Your task to perform on an android device: Open Google Chrome Image 0: 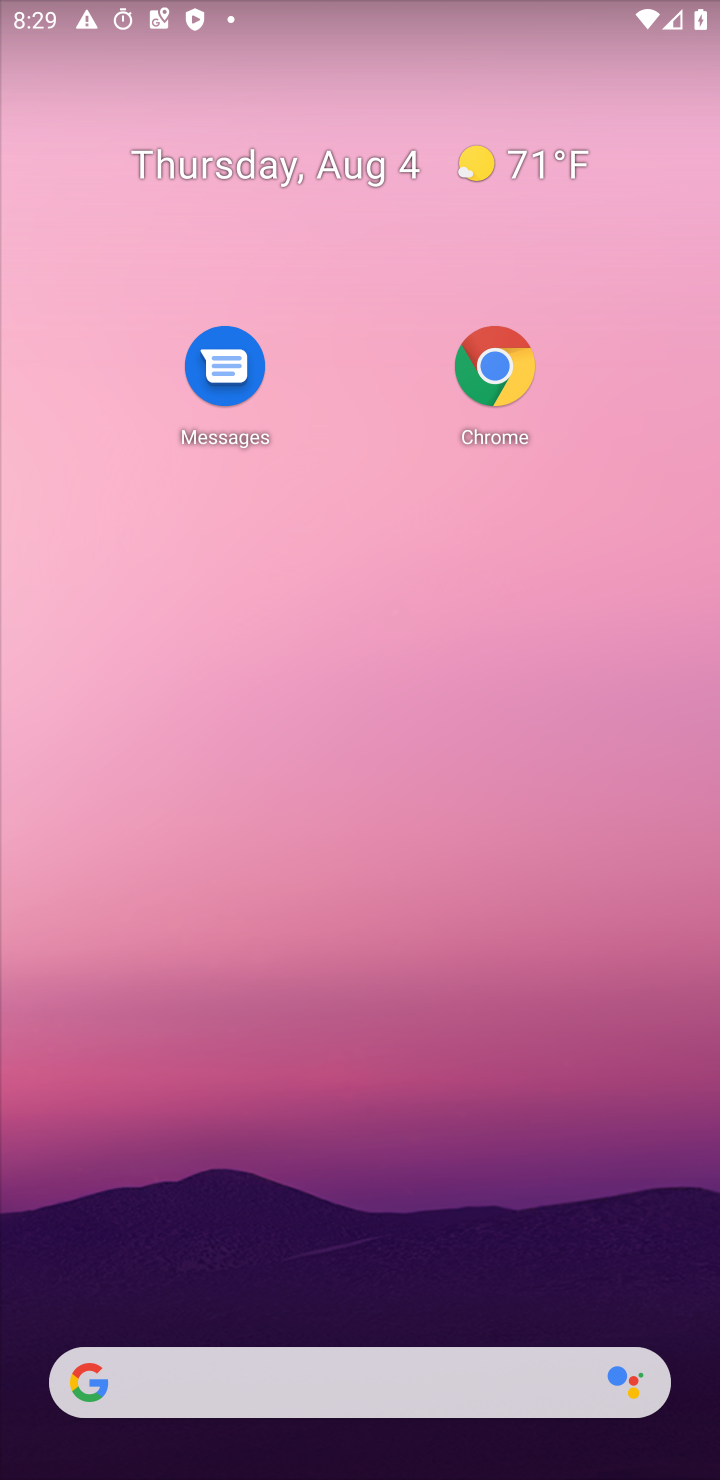
Step 0: drag from (483, 1412) to (384, 386)
Your task to perform on an android device: Open Google Chrome Image 1: 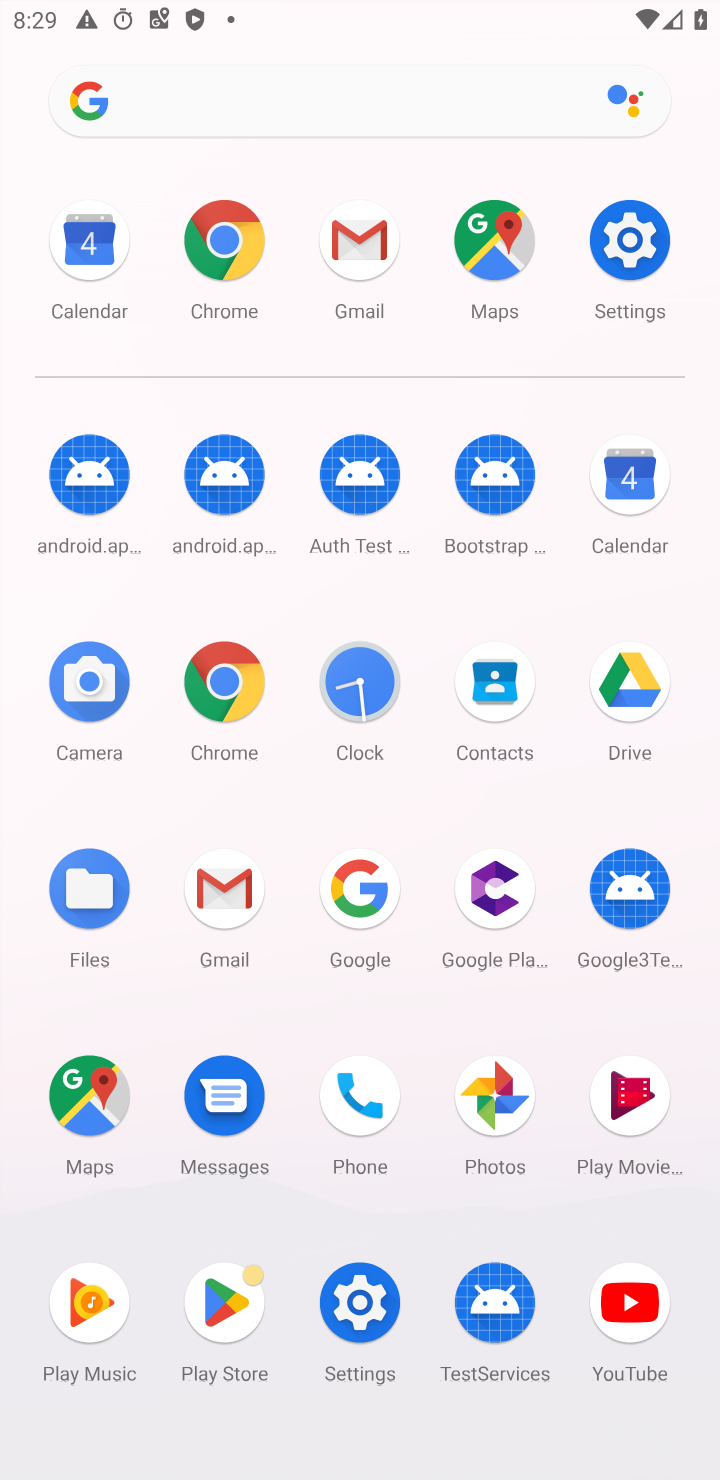
Step 1: click (229, 263)
Your task to perform on an android device: Open Google Chrome Image 2: 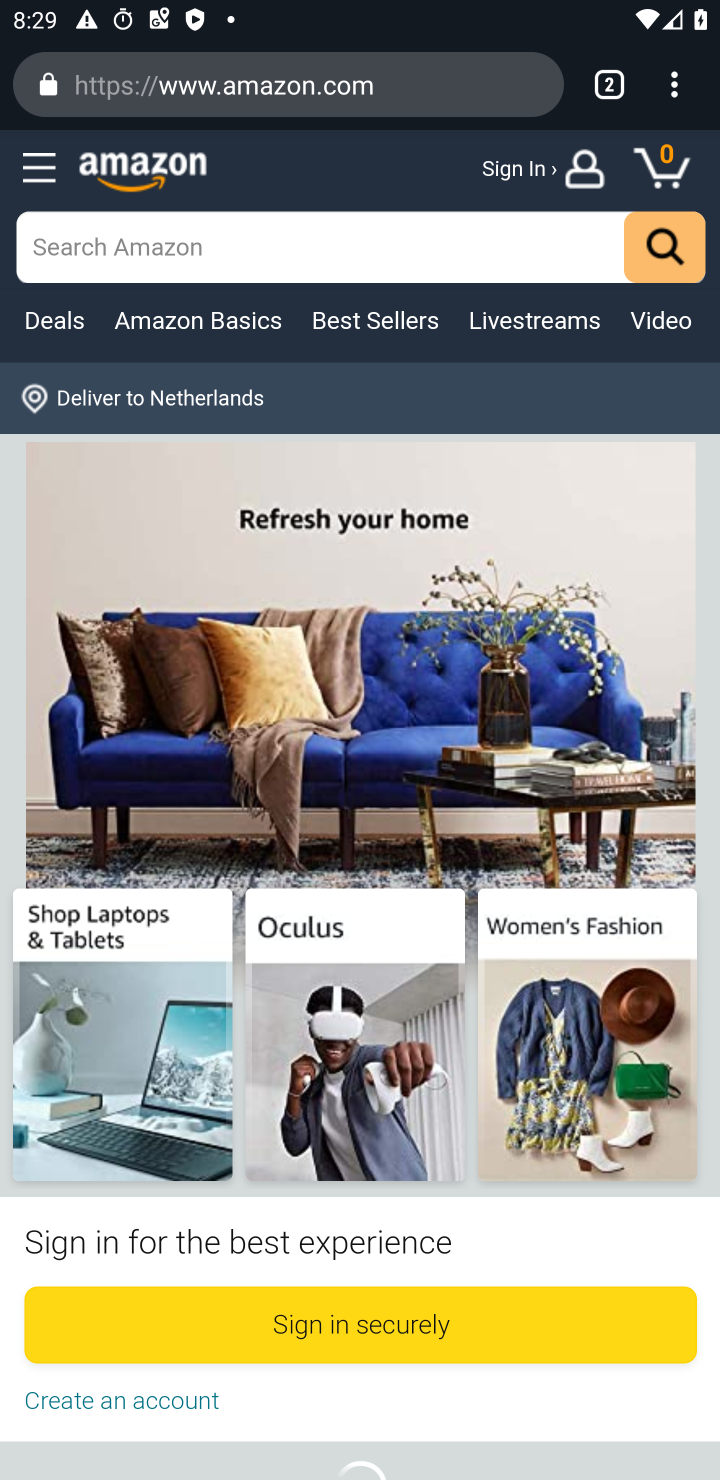
Step 2: click (612, 86)
Your task to perform on an android device: Open Google Chrome Image 3: 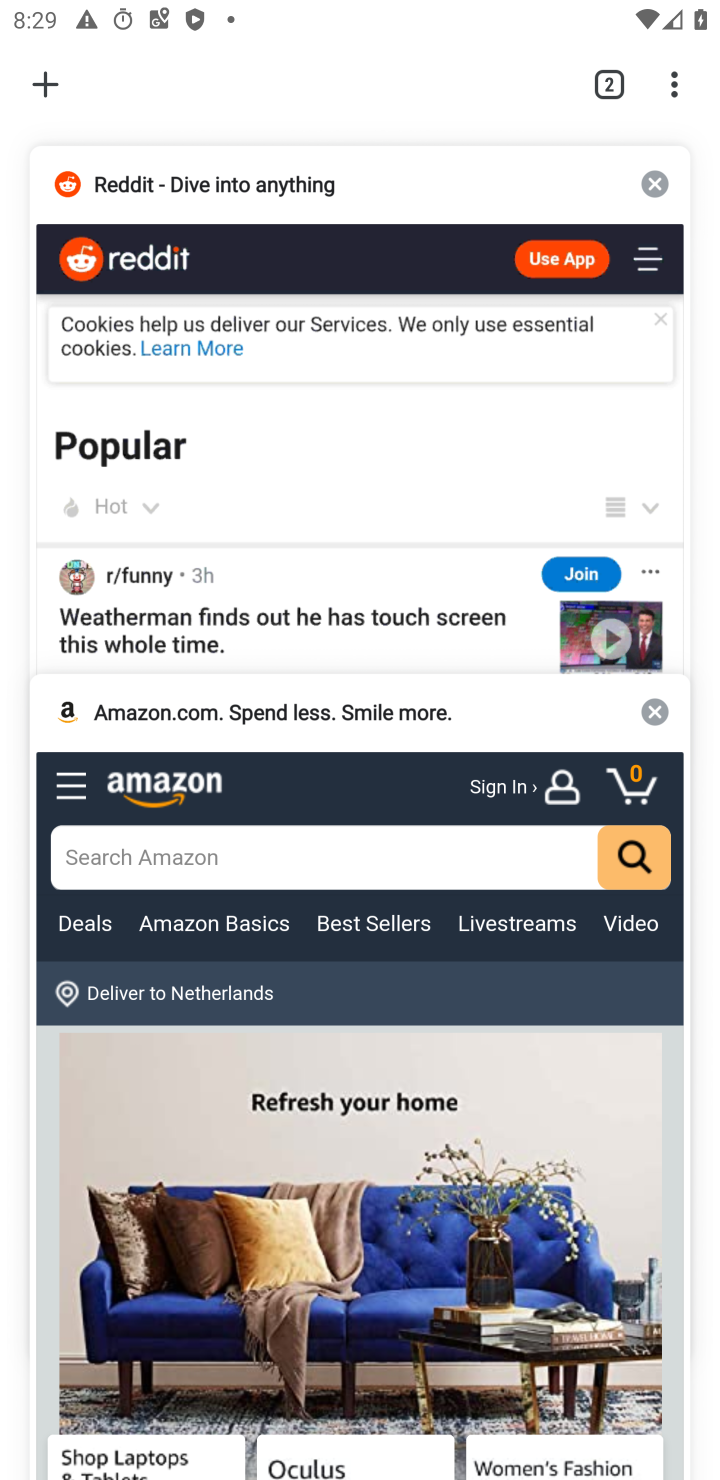
Step 3: click (52, 101)
Your task to perform on an android device: Open Google Chrome Image 4: 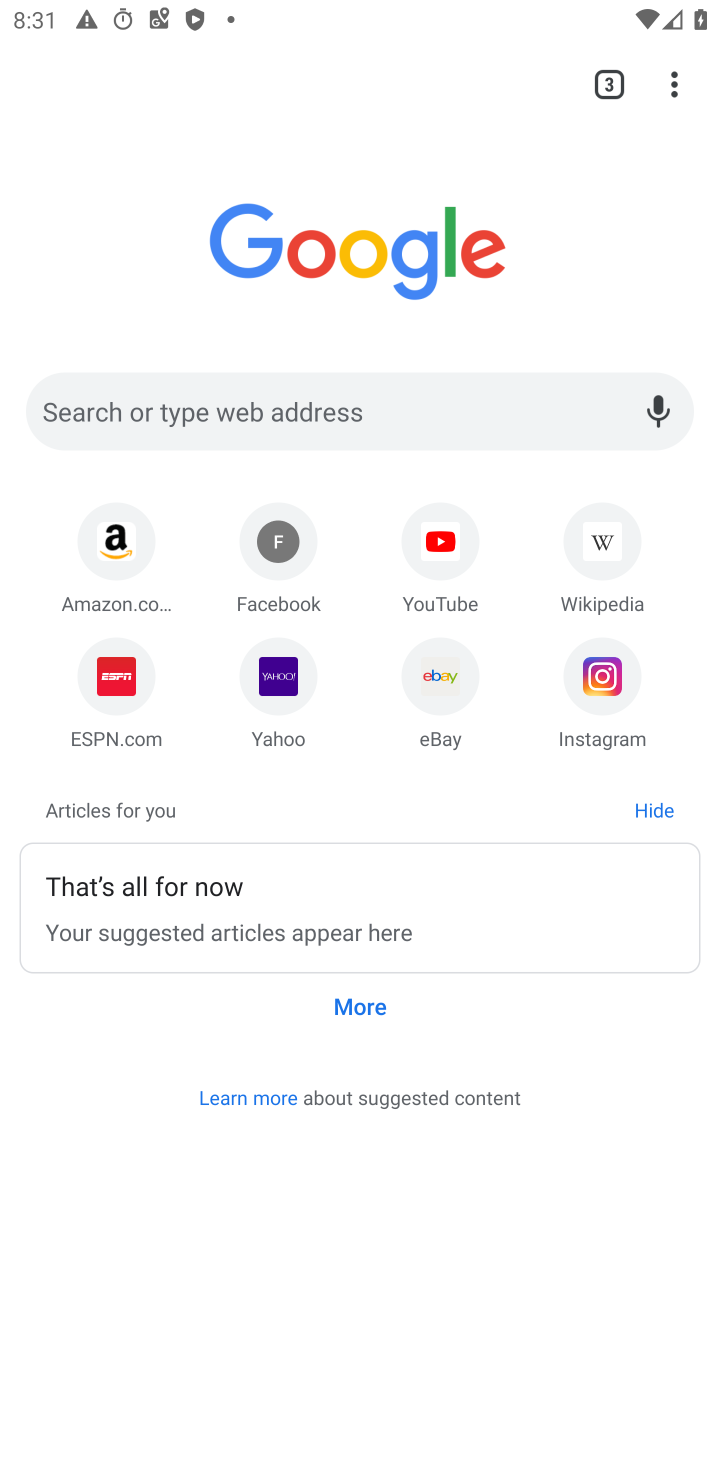
Step 4: task complete